Your task to perform on an android device: Go to Amazon Image 0: 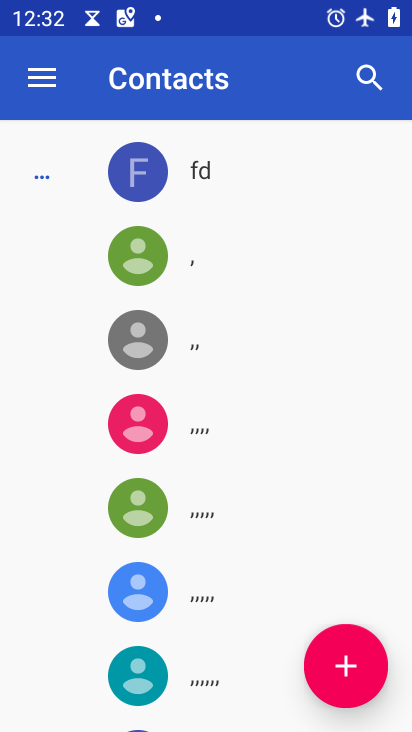
Step 0: press home button
Your task to perform on an android device: Go to Amazon Image 1: 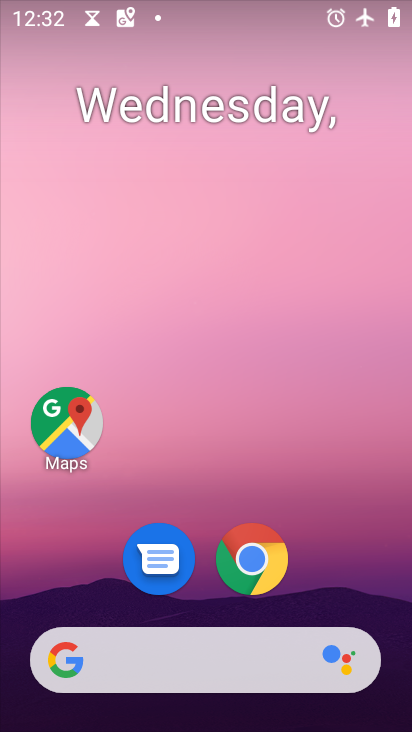
Step 1: click (265, 549)
Your task to perform on an android device: Go to Amazon Image 2: 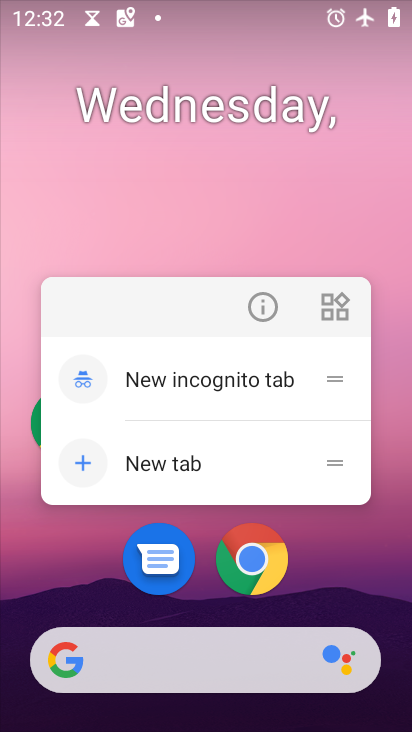
Step 2: click (265, 549)
Your task to perform on an android device: Go to Amazon Image 3: 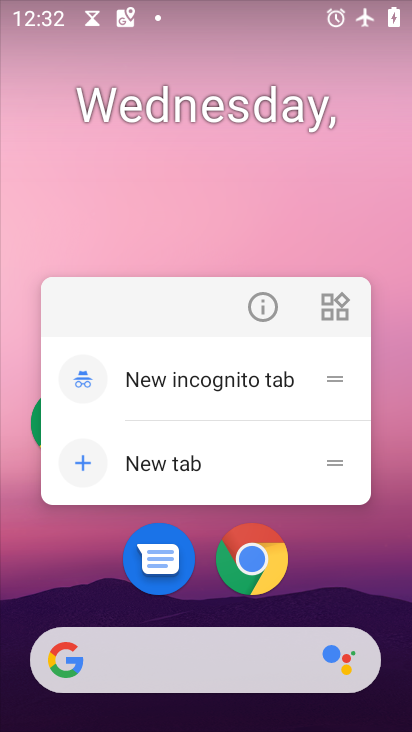
Step 3: click (265, 548)
Your task to perform on an android device: Go to Amazon Image 4: 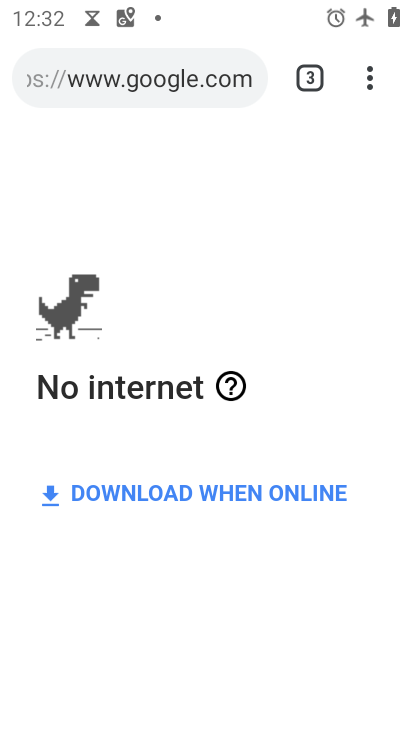
Step 4: click (152, 71)
Your task to perform on an android device: Go to Amazon Image 5: 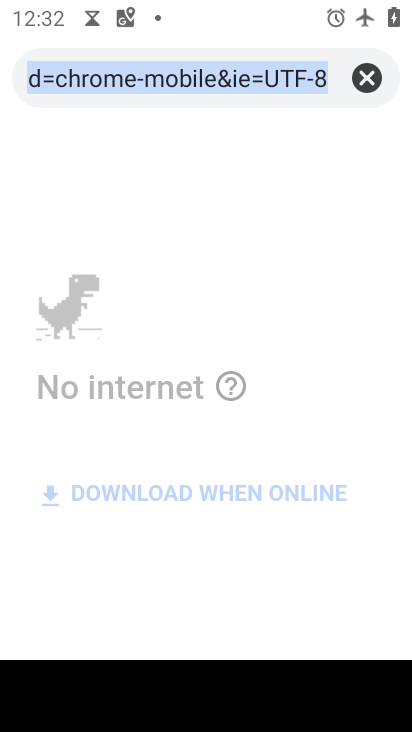
Step 5: click (358, 86)
Your task to perform on an android device: Go to Amazon Image 6: 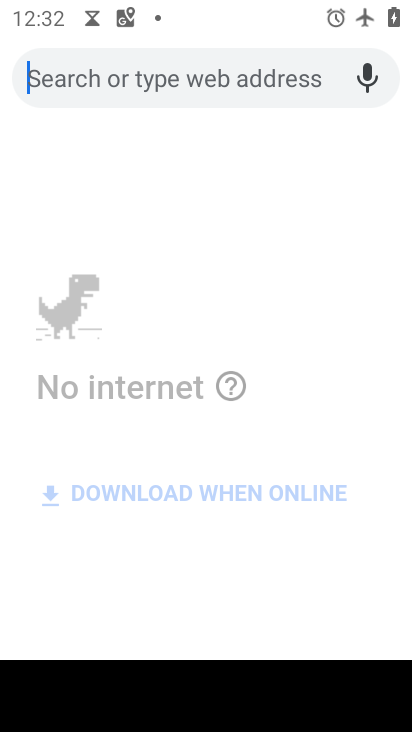
Step 6: type "amazon"
Your task to perform on an android device: Go to Amazon Image 7: 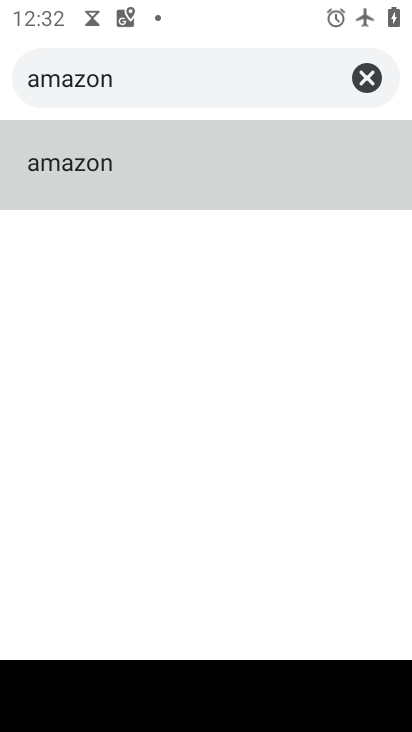
Step 7: click (60, 187)
Your task to perform on an android device: Go to Amazon Image 8: 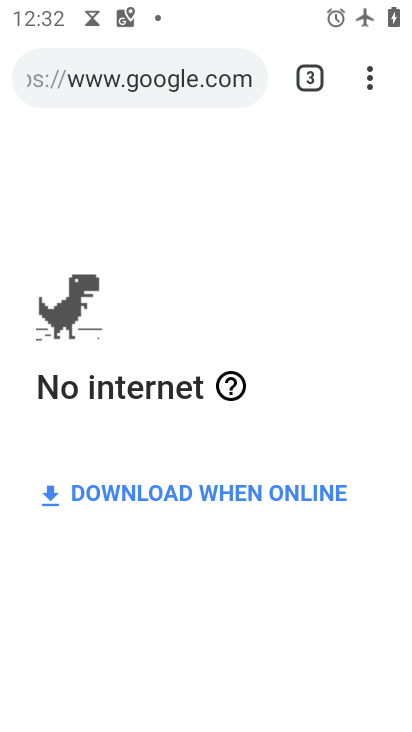
Step 8: click (184, 84)
Your task to perform on an android device: Go to Amazon Image 9: 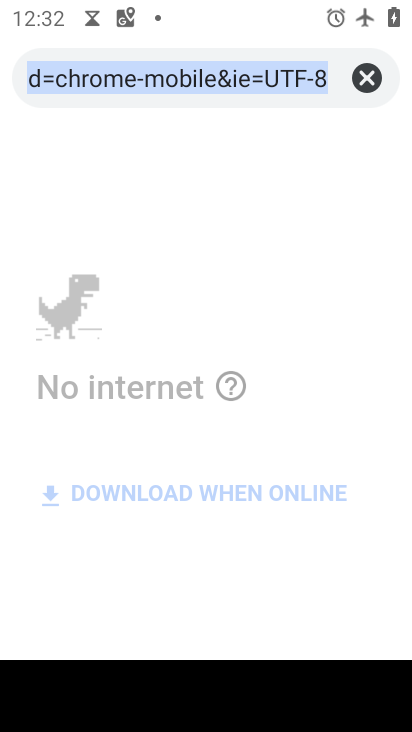
Step 9: click (364, 72)
Your task to perform on an android device: Go to Amazon Image 10: 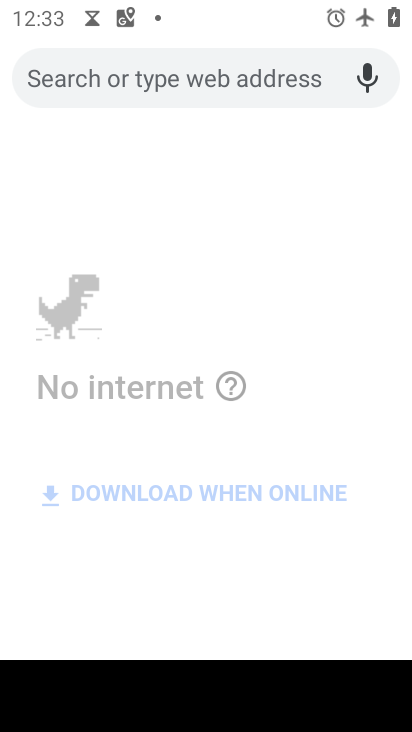
Step 10: type "ama"
Your task to perform on an android device: Go to Amazon Image 11: 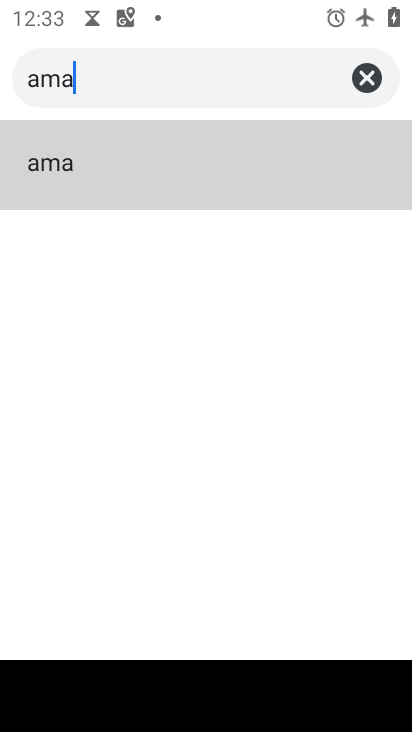
Step 11: type "amazon"
Your task to perform on an android device: Go to Amazon Image 12: 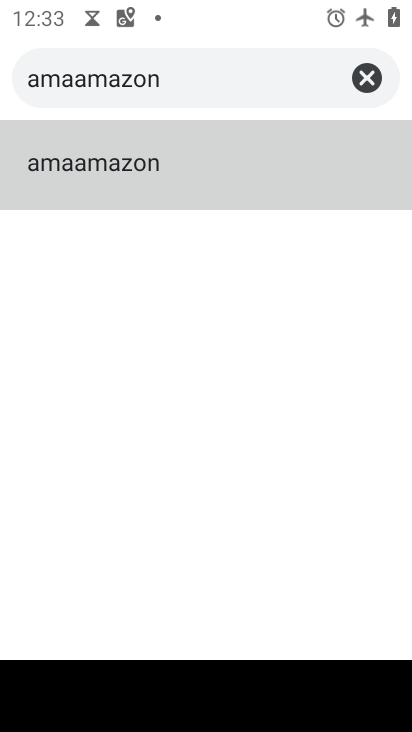
Step 12: click (365, 78)
Your task to perform on an android device: Go to Amazon Image 13: 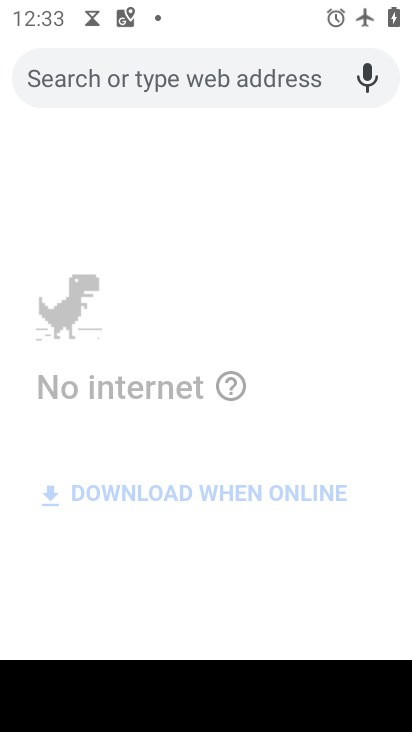
Step 13: type "amazon"
Your task to perform on an android device: Go to Amazon Image 14: 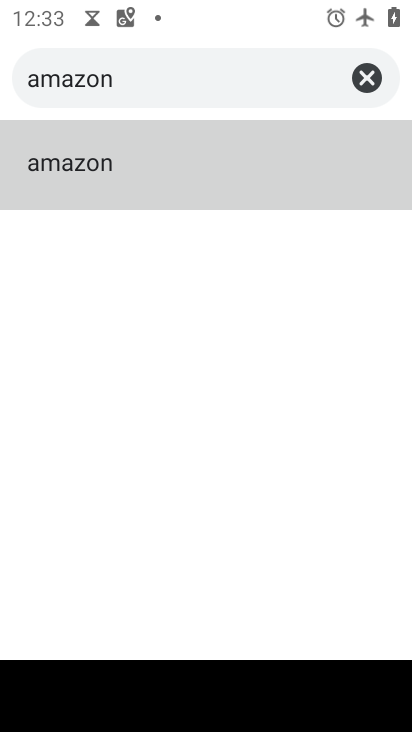
Step 14: click (64, 177)
Your task to perform on an android device: Go to Amazon Image 15: 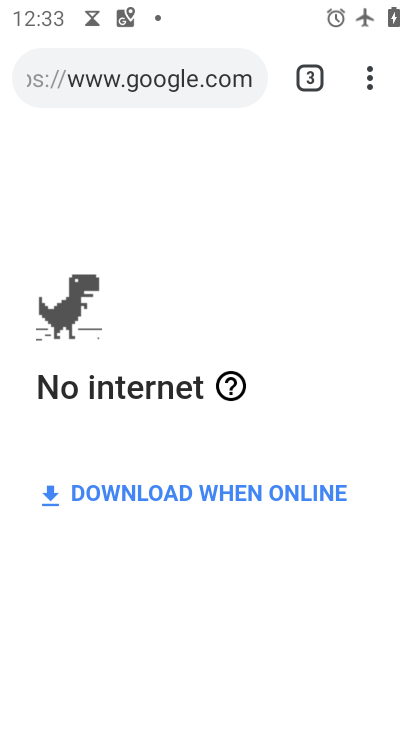
Step 15: task complete